Your task to perform on an android device: Go to notification settings Image 0: 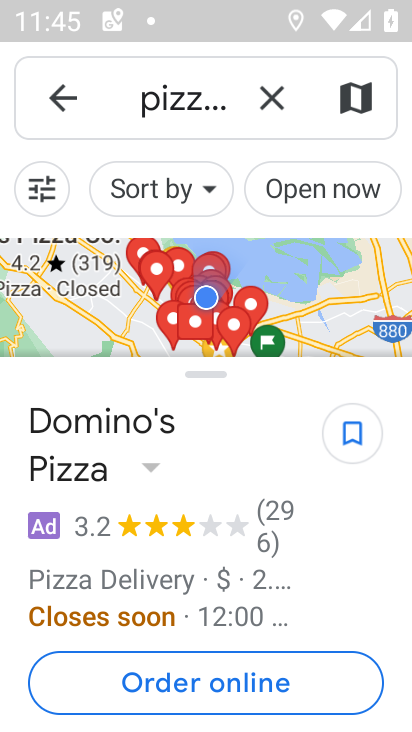
Step 0: press home button
Your task to perform on an android device: Go to notification settings Image 1: 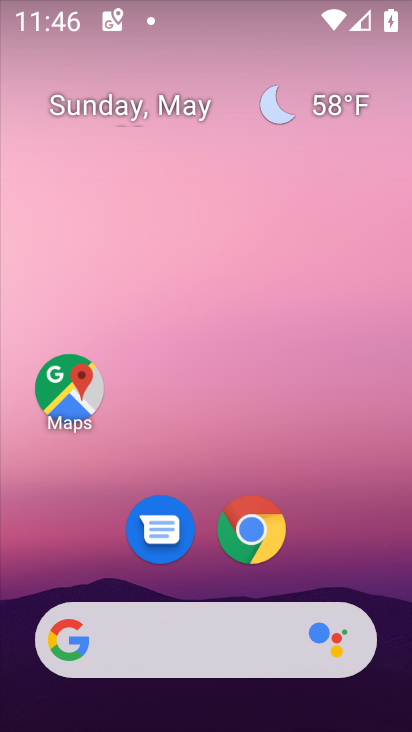
Step 1: drag from (169, 645) to (160, 69)
Your task to perform on an android device: Go to notification settings Image 2: 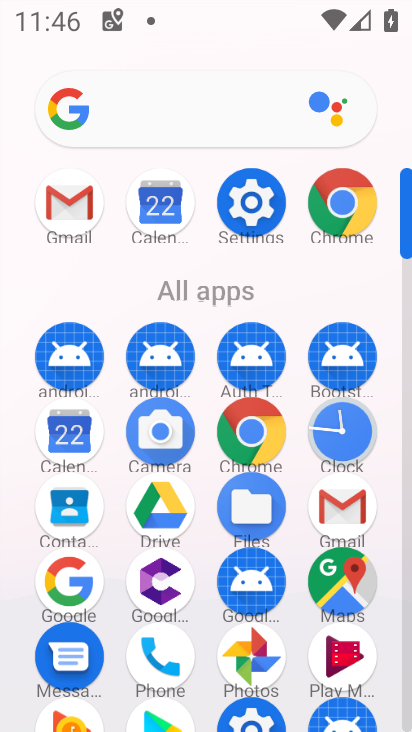
Step 2: click (241, 207)
Your task to perform on an android device: Go to notification settings Image 3: 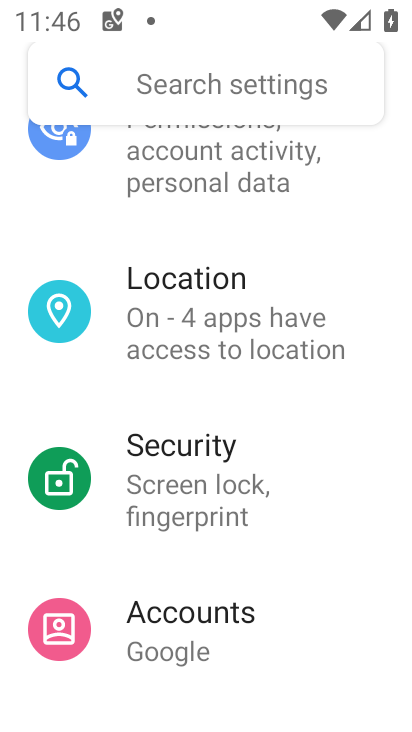
Step 3: drag from (156, 191) to (130, 731)
Your task to perform on an android device: Go to notification settings Image 4: 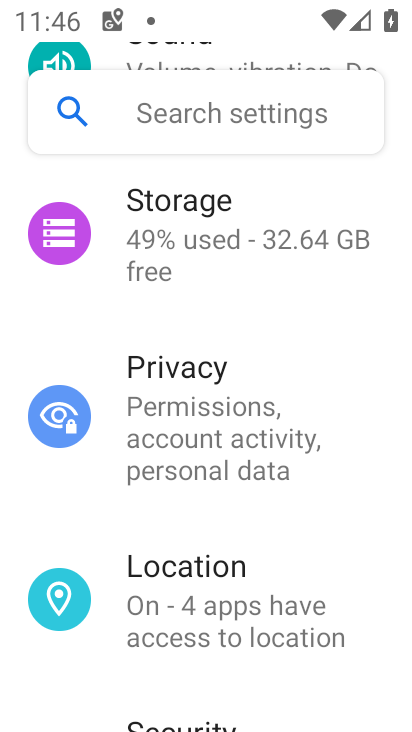
Step 4: drag from (155, 288) to (216, 722)
Your task to perform on an android device: Go to notification settings Image 5: 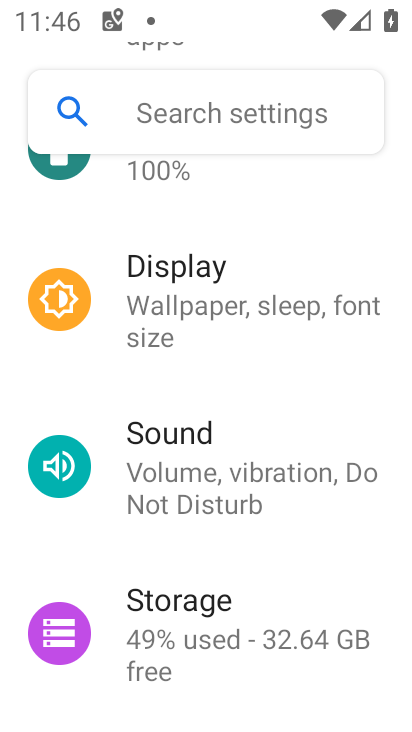
Step 5: drag from (164, 273) to (243, 731)
Your task to perform on an android device: Go to notification settings Image 6: 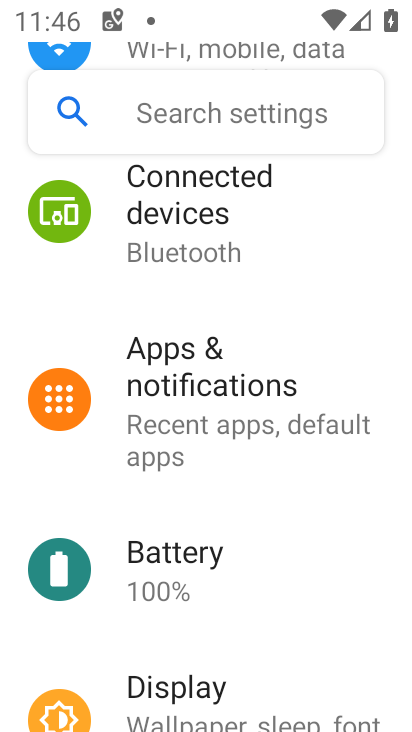
Step 6: drag from (250, 686) to (218, 330)
Your task to perform on an android device: Go to notification settings Image 7: 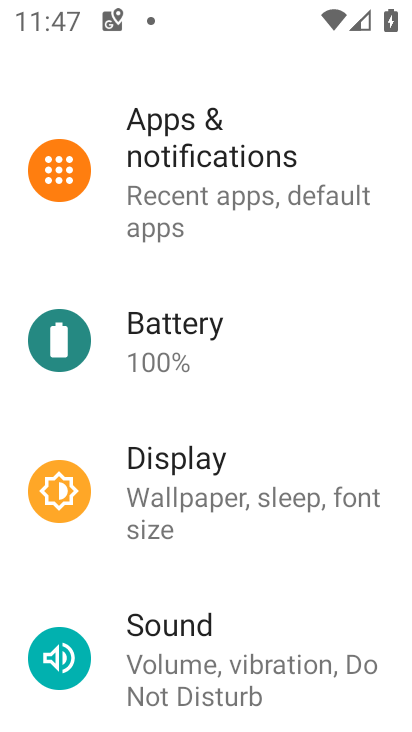
Step 7: click (163, 139)
Your task to perform on an android device: Go to notification settings Image 8: 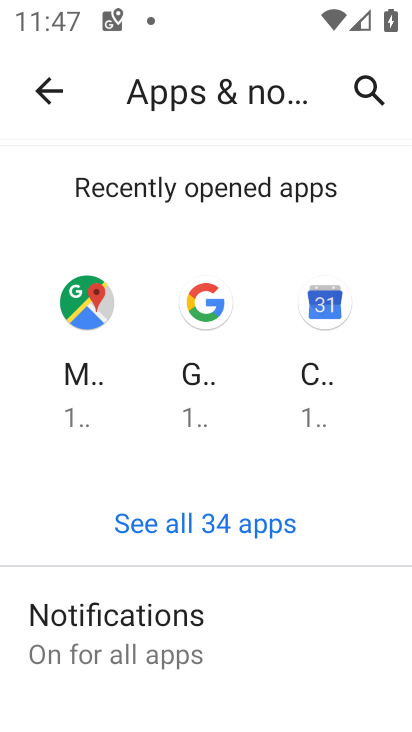
Step 8: task complete